Your task to perform on an android device: turn on priority inbox in the gmail app Image 0: 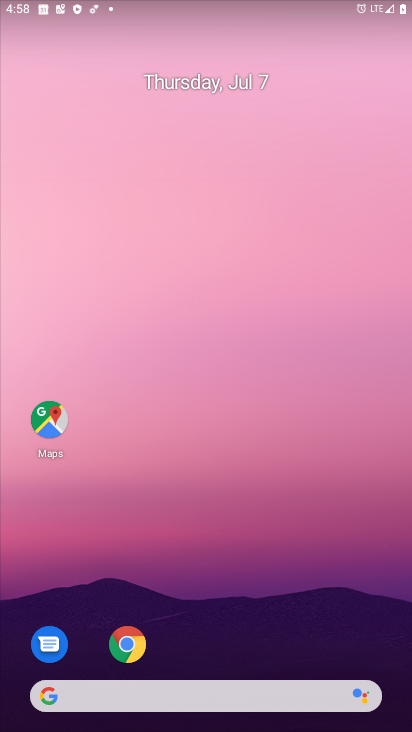
Step 0: drag from (242, 618) to (294, 177)
Your task to perform on an android device: turn on priority inbox in the gmail app Image 1: 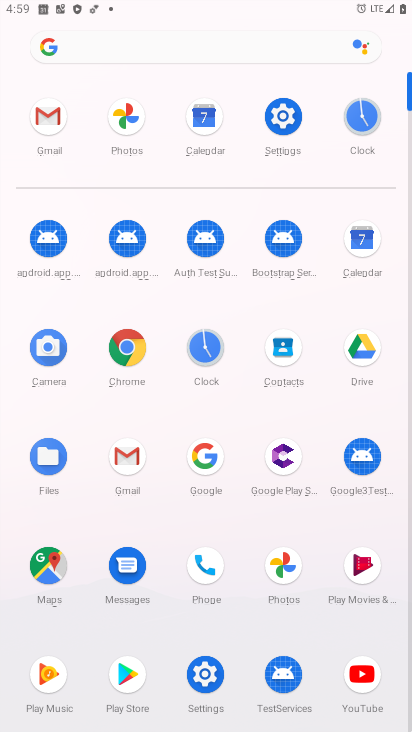
Step 1: click (124, 454)
Your task to perform on an android device: turn on priority inbox in the gmail app Image 2: 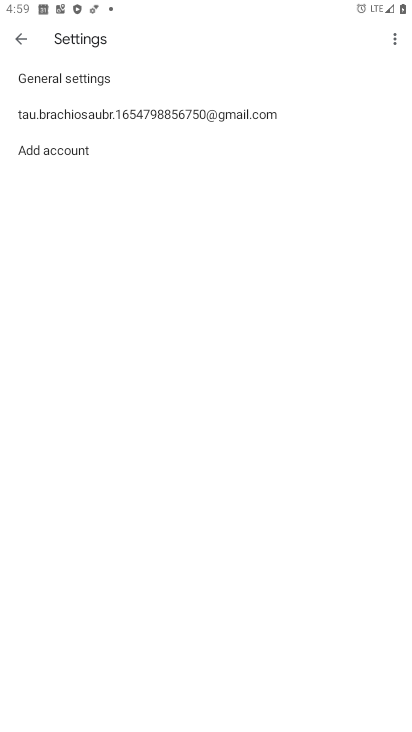
Step 2: click (154, 110)
Your task to perform on an android device: turn on priority inbox in the gmail app Image 3: 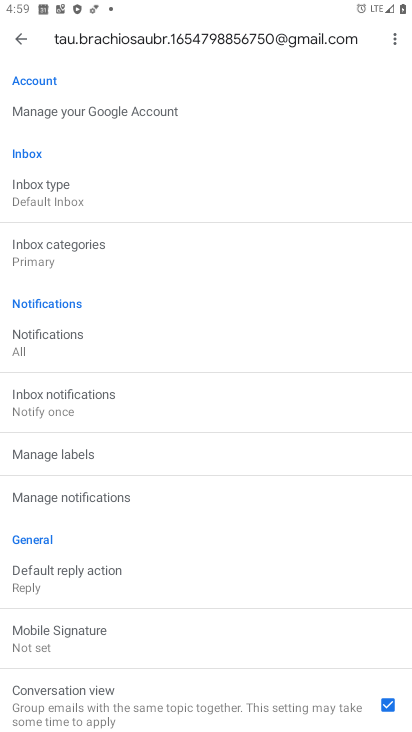
Step 3: drag from (80, 548) to (153, 456)
Your task to perform on an android device: turn on priority inbox in the gmail app Image 4: 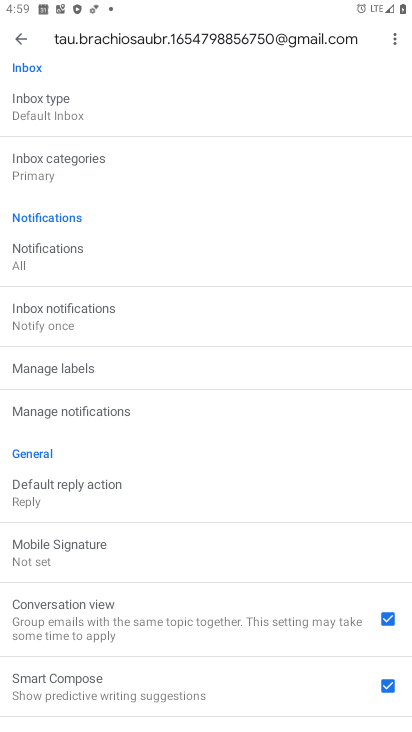
Step 4: drag from (116, 579) to (194, 476)
Your task to perform on an android device: turn on priority inbox in the gmail app Image 5: 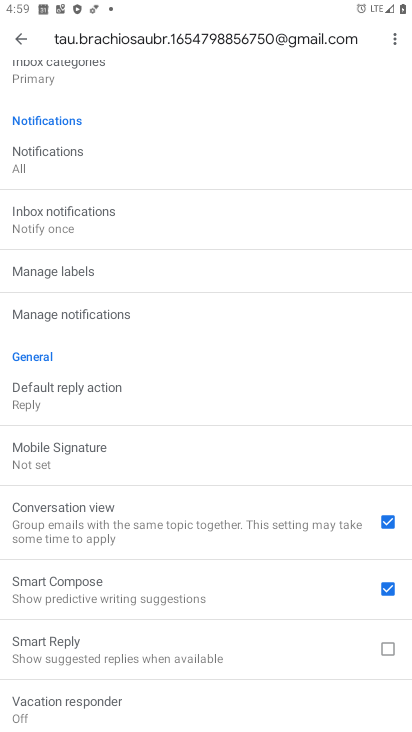
Step 5: drag from (127, 639) to (193, 552)
Your task to perform on an android device: turn on priority inbox in the gmail app Image 6: 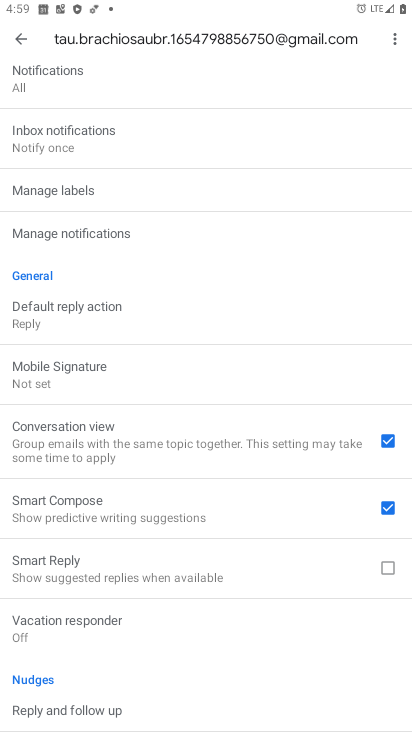
Step 6: drag from (170, 293) to (145, 424)
Your task to perform on an android device: turn on priority inbox in the gmail app Image 7: 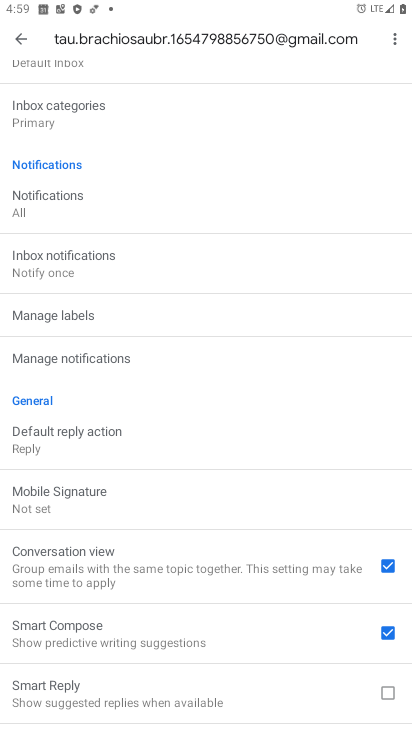
Step 7: drag from (151, 205) to (144, 372)
Your task to perform on an android device: turn on priority inbox in the gmail app Image 8: 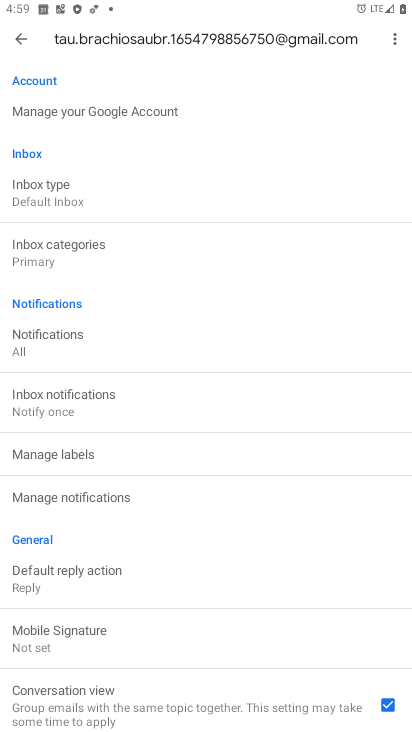
Step 8: click (47, 203)
Your task to perform on an android device: turn on priority inbox in the gmail app Image 9: 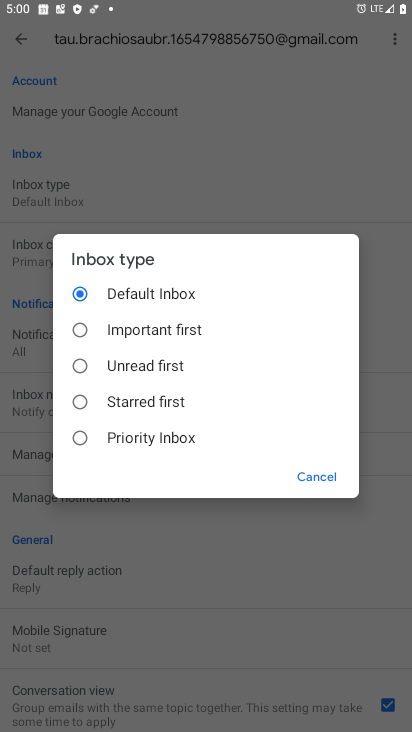
Step 9: click (82, 441)
Your task to perform on an android device: turn on priority inbox in the gmail app Image 10: 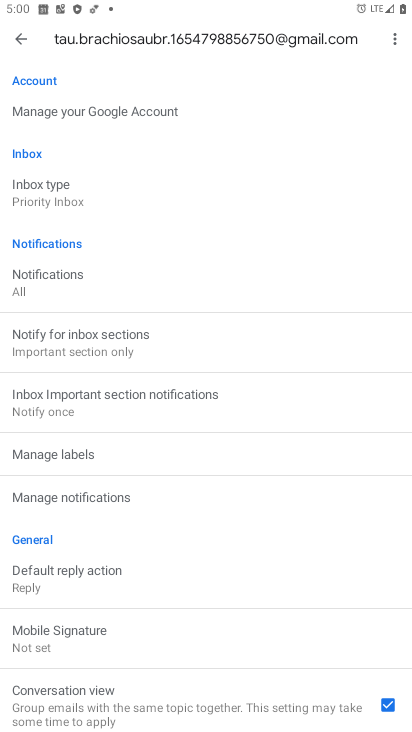
Step 10: task complete